Your task to perform on an android device: open a bookmark in the chrome app Image 0: 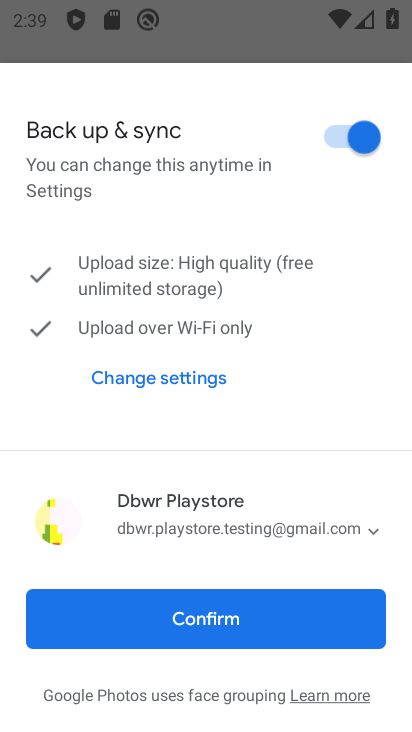
Step 0: click (187, 630)
Your task to perform on an android device: open a bookmark in the chrome app Image 1: 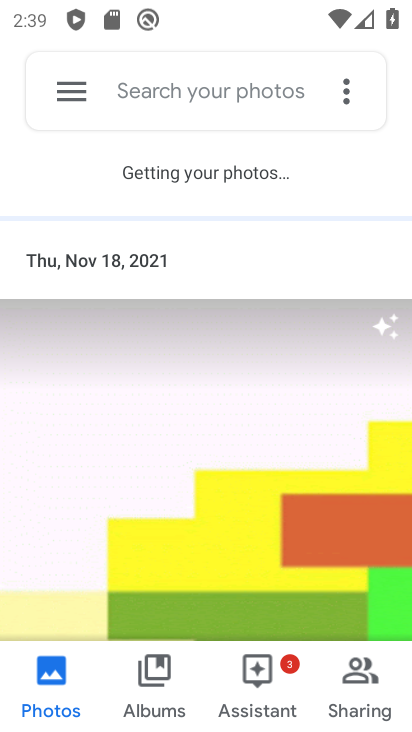
Step 1: press home button
Your task to perform on an android device: open a bookmark in the chrome app Image 2: 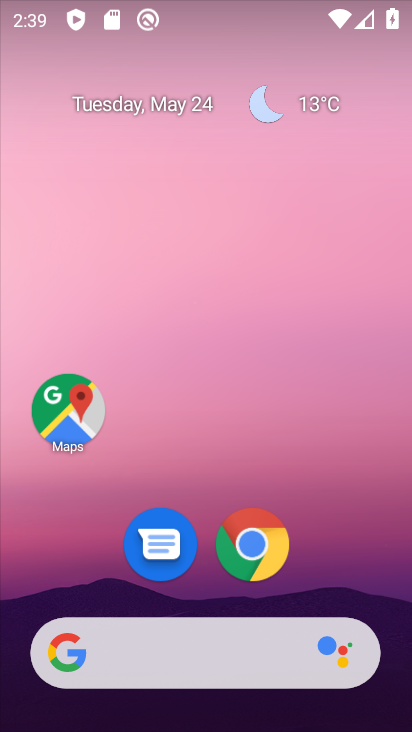
Step 2: click (268, 521)
Your task to perform on an android device: open a bookmark in the chrome app Image 3: 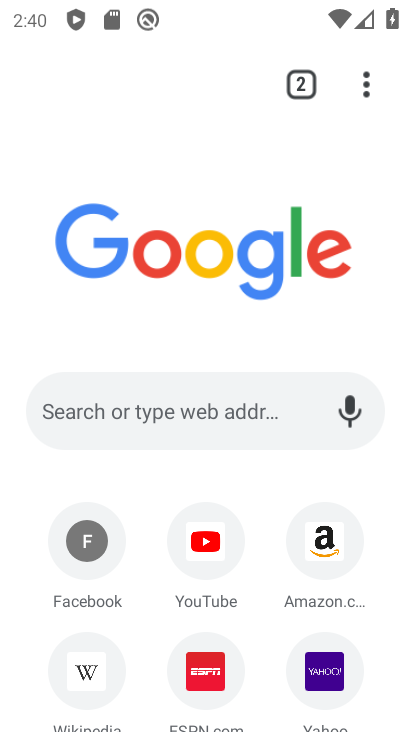
Step 3: drag from (382, 100) to (61, 317)
Your task to perform on an android device: open a bookmark in the chrome app Image 4: 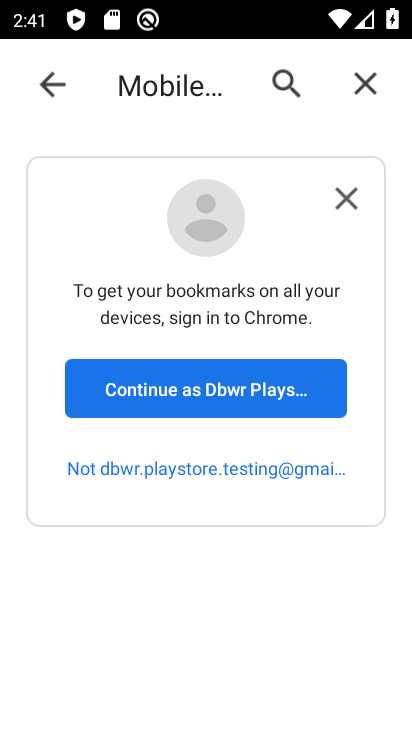
Step 4: click (201, 380)
Your task to perform on an android device: open a bookmark in the chrome app Image 5: 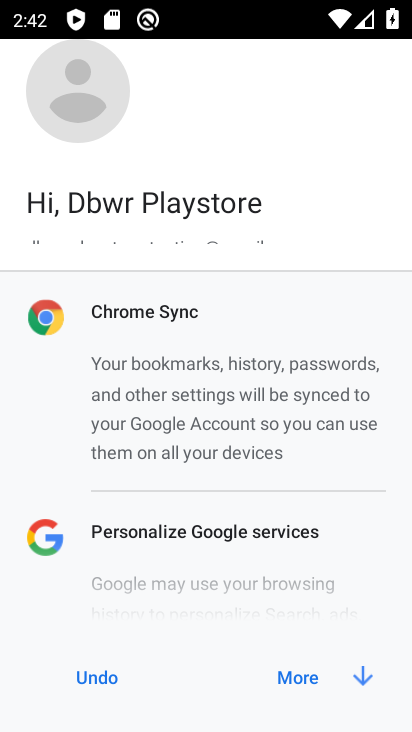
Step 5: click (293, 678)
Your task to perform on an android device: open a bookmark in the chrome app Image 6: 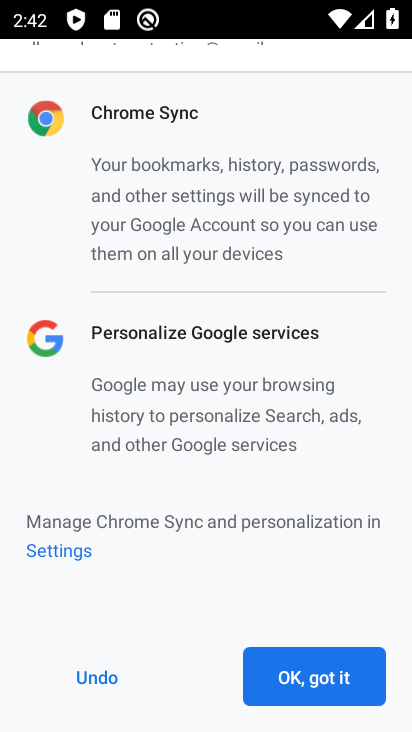
Step 6: click (260, 658)
Your task to perform on an android device: open a bookmark in the chrome app Image 7: 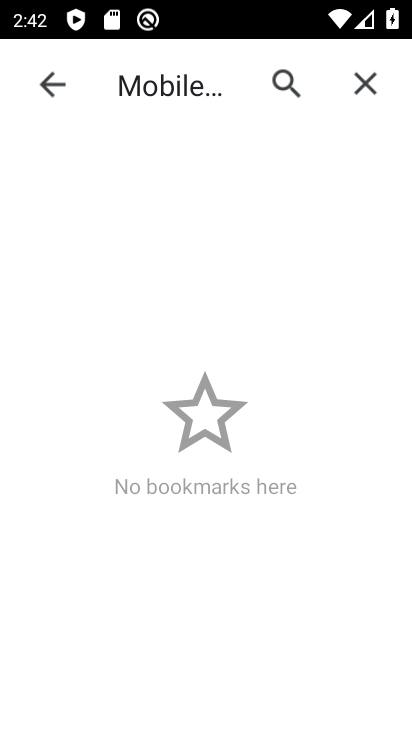
Step 7: task complete